Your task to perform on an android device: change keyboard looks Image 0: 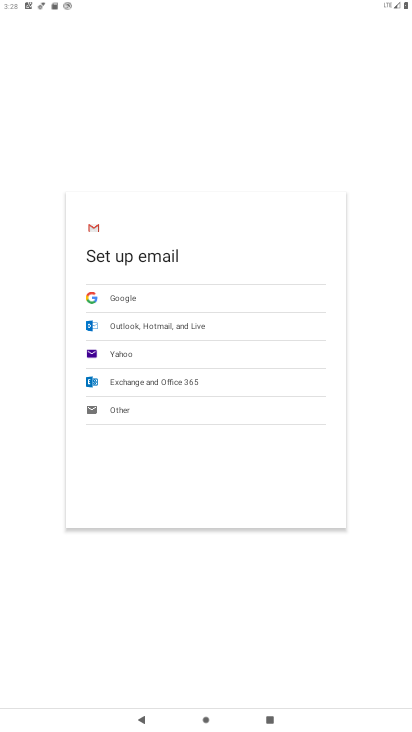
Step 0: press home button
Your task to perform on an android device: change keyboard looks Image 1: 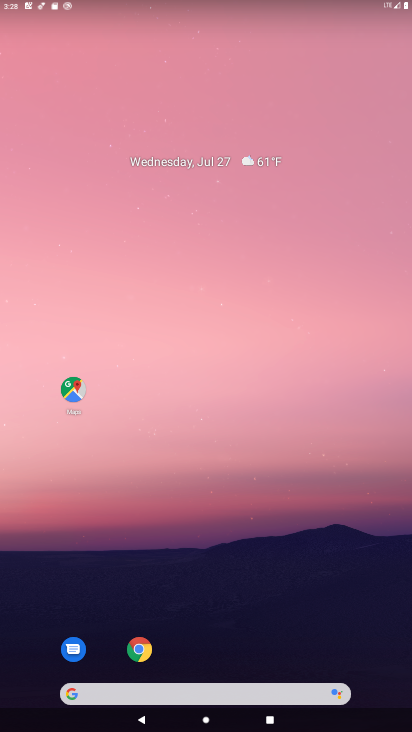
Step 1: drag from (196, 658) to (256, 4)
Your task to perform on an android device: change keyboard looks Image 2: 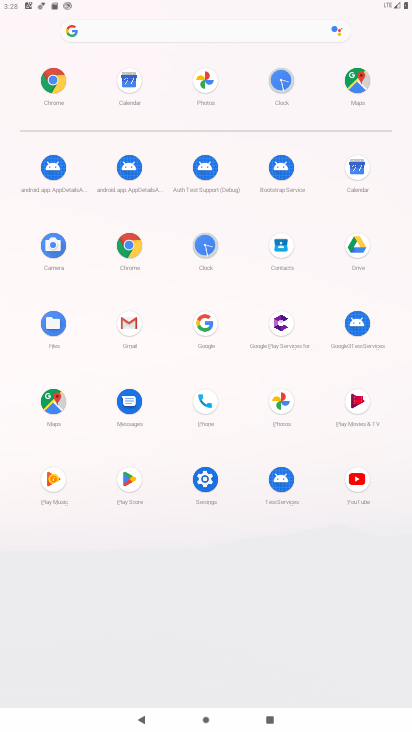
Step 2: click (204, 488)
Your task to perform on an android device: change keyboard looks Image 3: 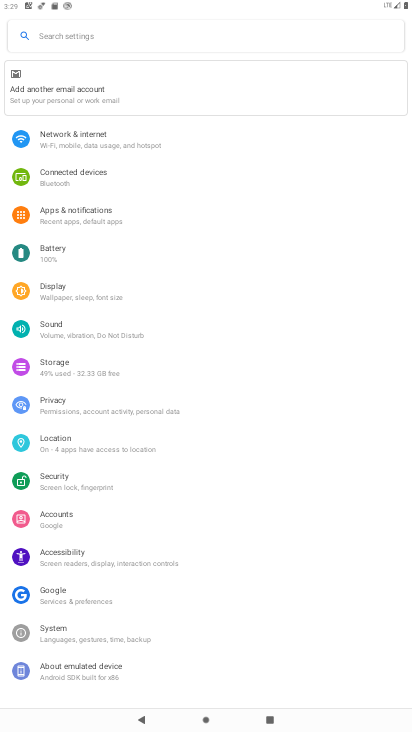
Step 3: click (67, 624)
Your task to perform on an android device: change keyboard looks Image 4: 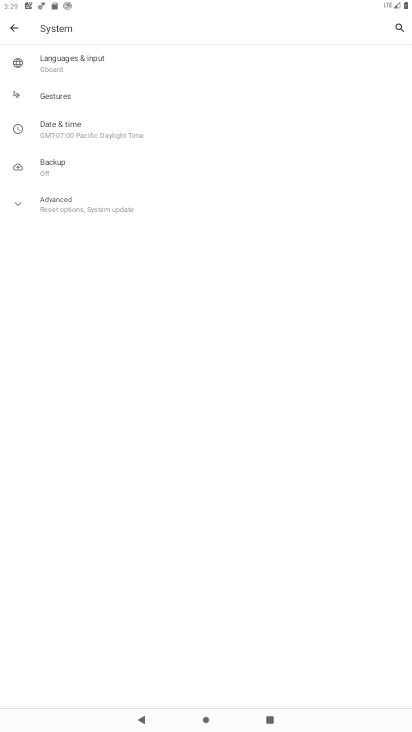
Step 4: click (74, 65)
Your task to perform on an android device: change keyboard looks Image 5: 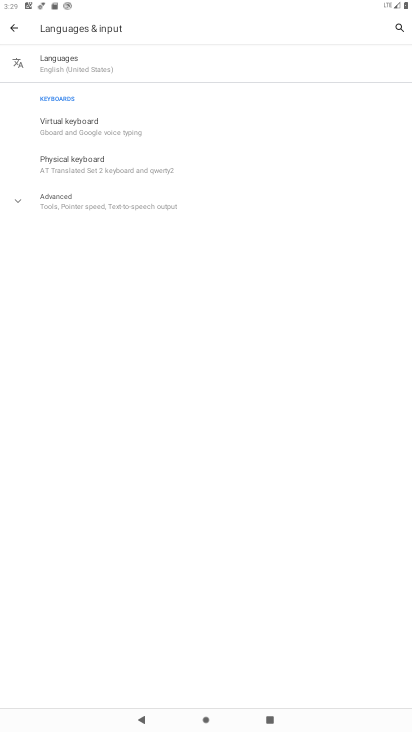
Step 5: click (62, 133)
Your task to perform on an android device: change keyboard looks Image 6: 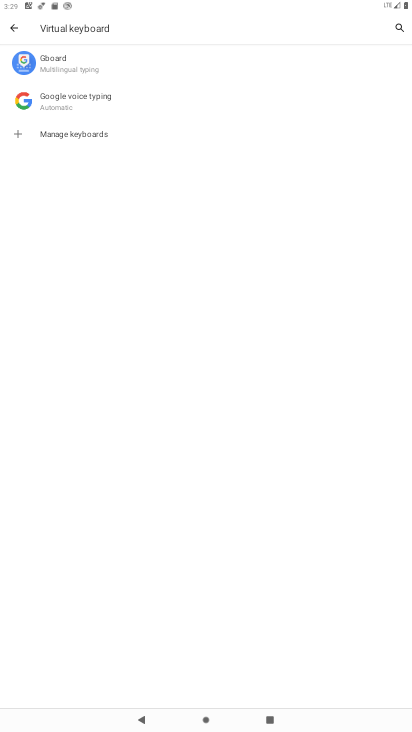
Step 6: click (89, 72)
Your task to perform on an android device: change keyboard looks Image 7: 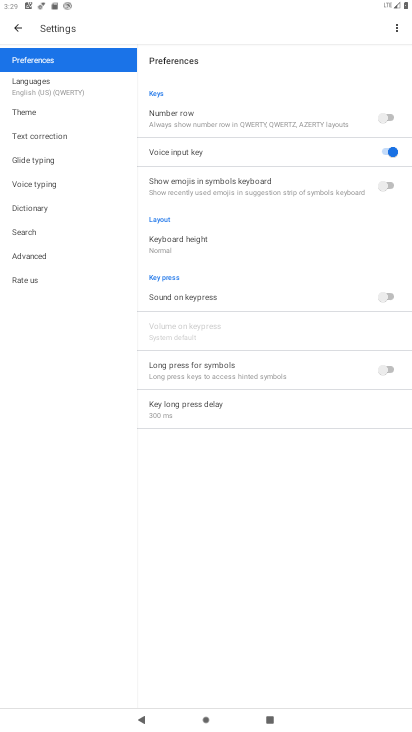
Step 7: click (39, 112)
Your task to perform on an android device: change keyboard looks Image 8: 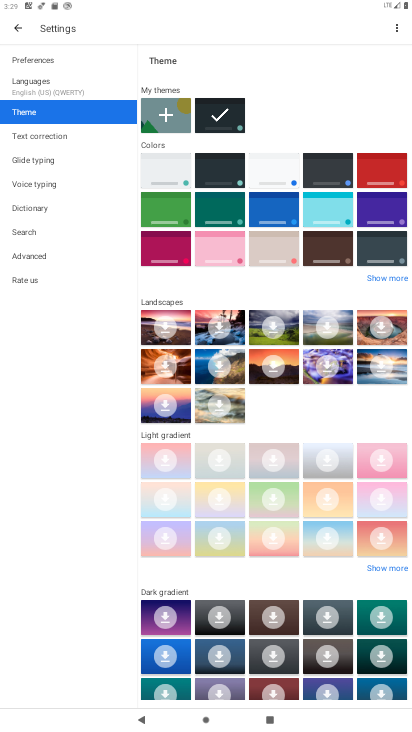
Step 8: click (226, 166)
Your task to perform on an android device: change keyboard looks Image 9: 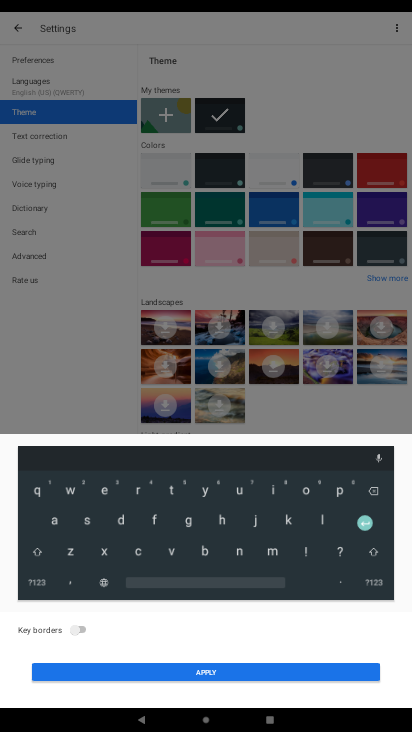
Step 9: click (206, 668)
Your task to perform on an android device: change keyboard looks Image 10: 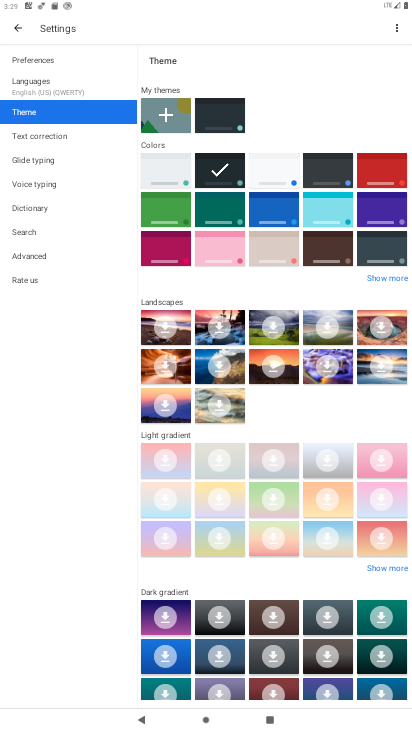
Step 10: task complete